Your task to perform on an android device: What is the news today? Image 0: 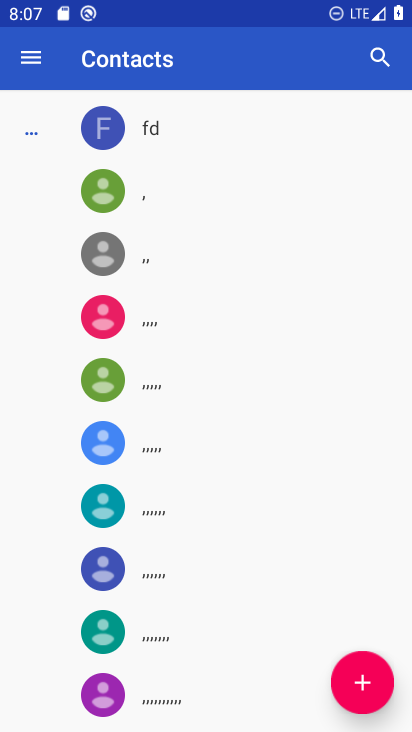
Step 0: press home button
Your task to perform on an android device: What is the news today? Image 1: 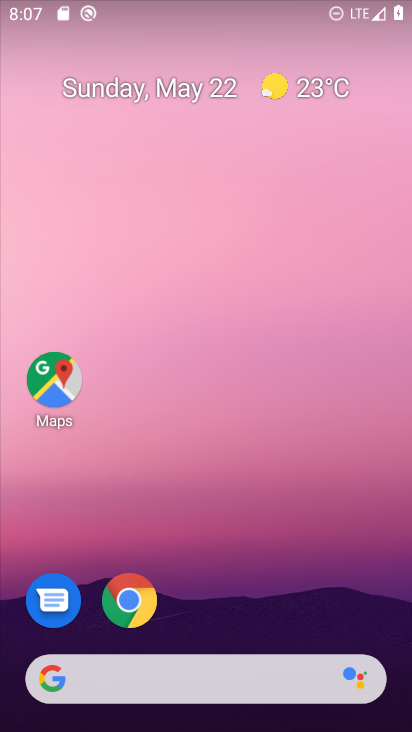
Step 1: drag from (345, 629) to (244, 41)
Your task to perform on an android device: What is the news today? Image 2: 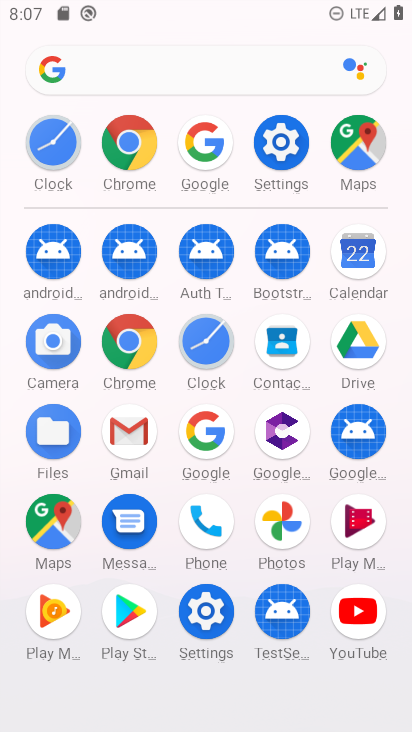
Step 2: click (195, 437)
Your task to perform on an android device: What is the news today? Image 3: 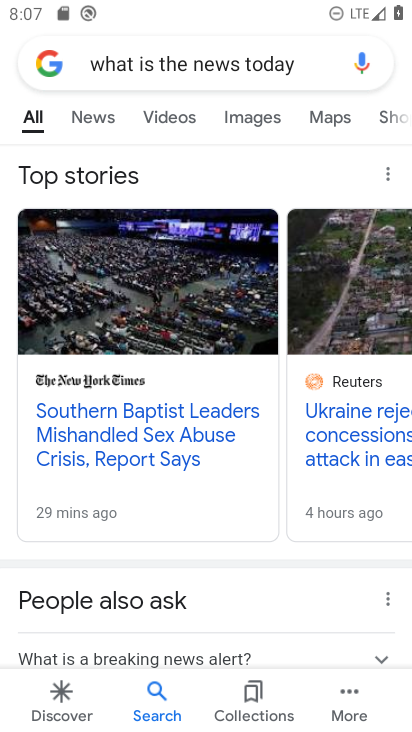
Step 3: task complete